Your task to perform on an android device: What's the weather today? Image 0: 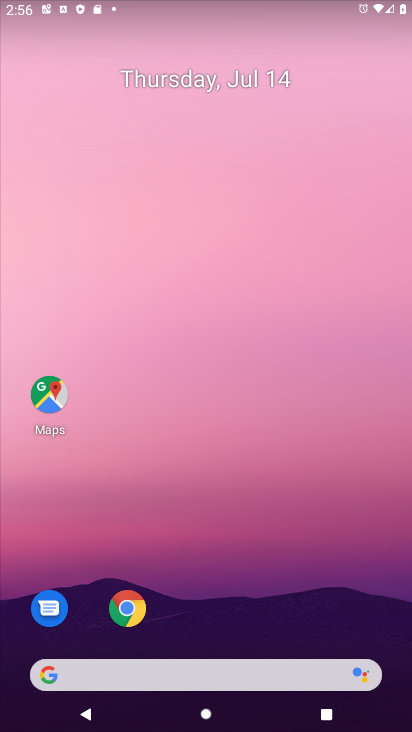
Step 0: drag from (1, 243) to (399, 284)
Your task to perform on an android device: What's the weather today? Image 1: 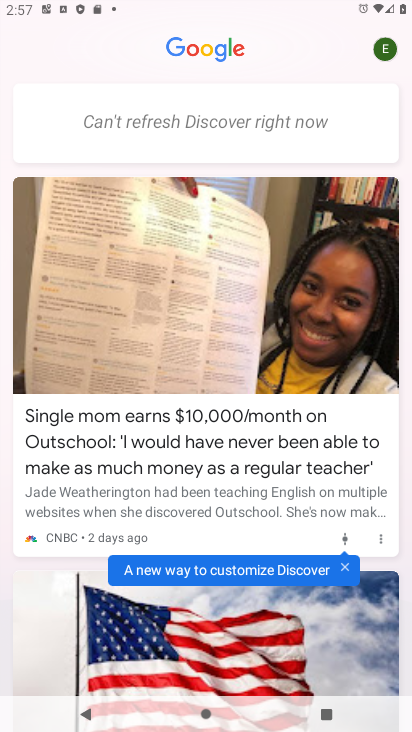
Step 1: task complete